Your task to perform on an android device: Go to Reddit.com Image 0: 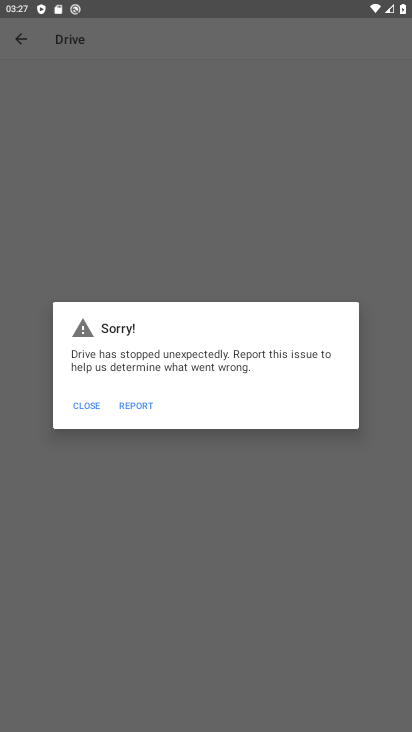
Step 0: press home button
Your task to perform on an android device: Go to Reddit.com Image 1: 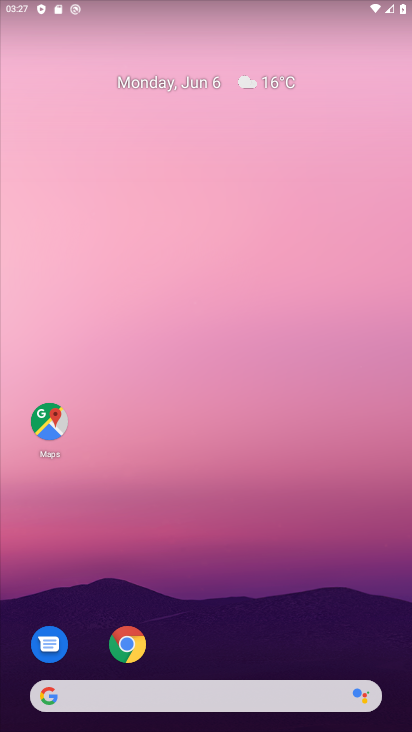
Step 1: drag from (381, 636) to (354, 160)
Your task to perform on an android device: Go to Reddit.com Image 2: 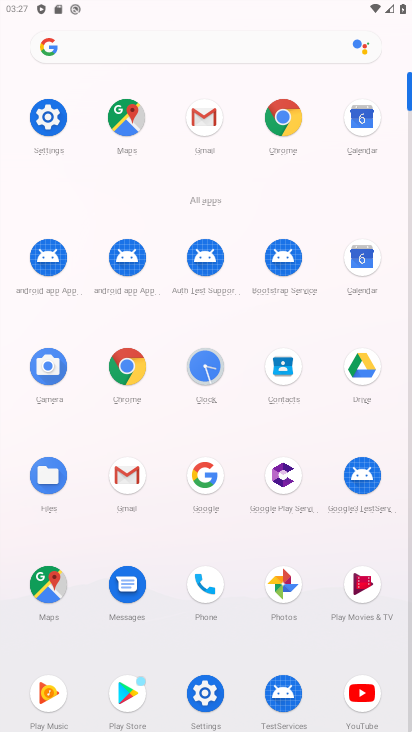
Step 2: click (284, 119)
Your task to perform on an android device: Go to Reddit.com Image 3: 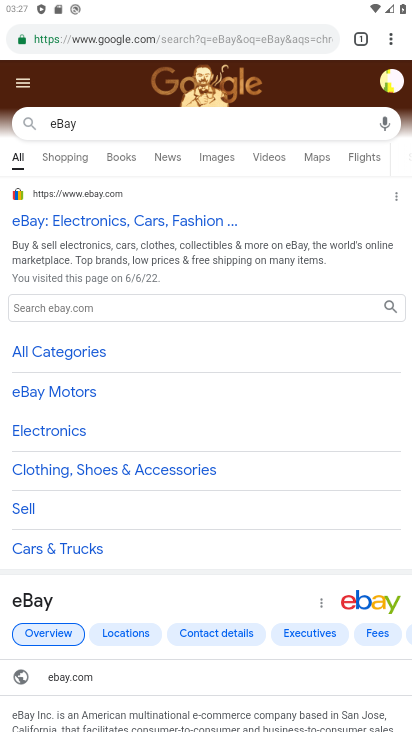
Step 3: click (331, 31)
Your task to perform on an android device: Go to Reddit.com Image 4: 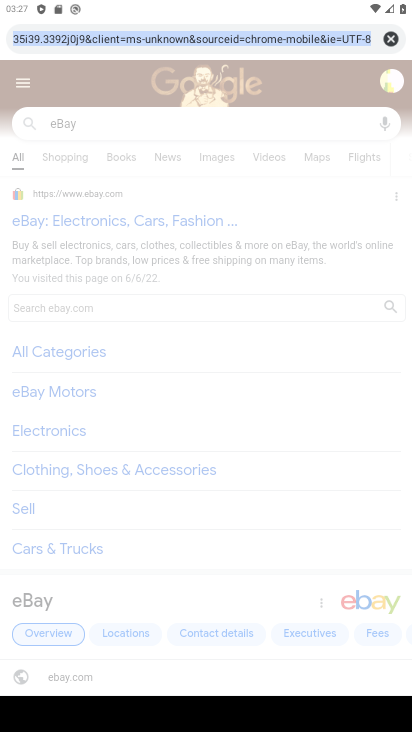
Step 4: click (384, 39)
Your task to perform on an android device: Go to Reddit.com Image 5: 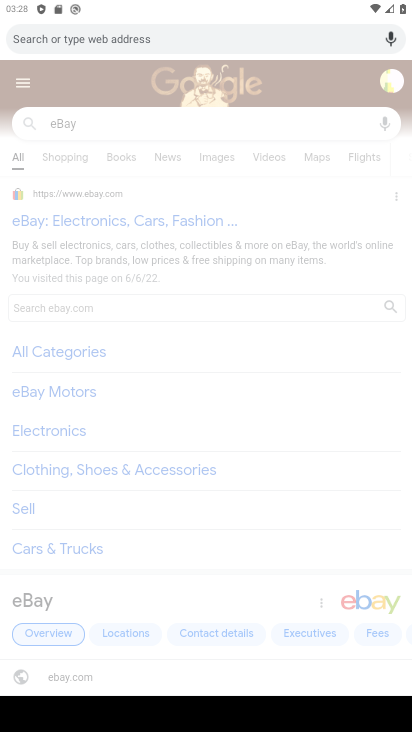
Step 5: type "Reddit.com"
Your task to perform on an android device: Go to Reddit.com Image 6: 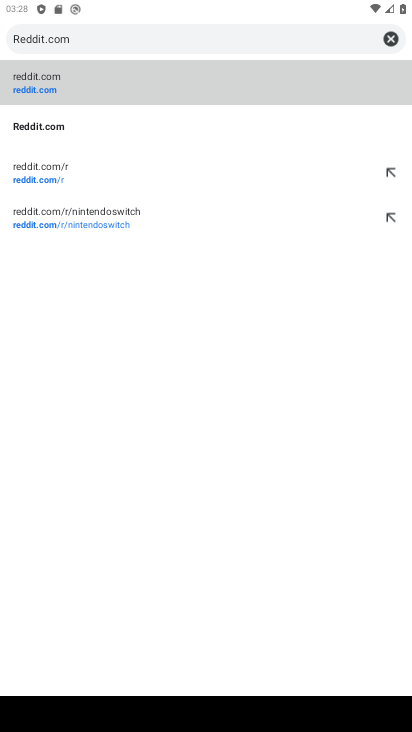
Step 6: click (47, 119)
Your task to perform on an android device: Go to Reddit.com Image 7: 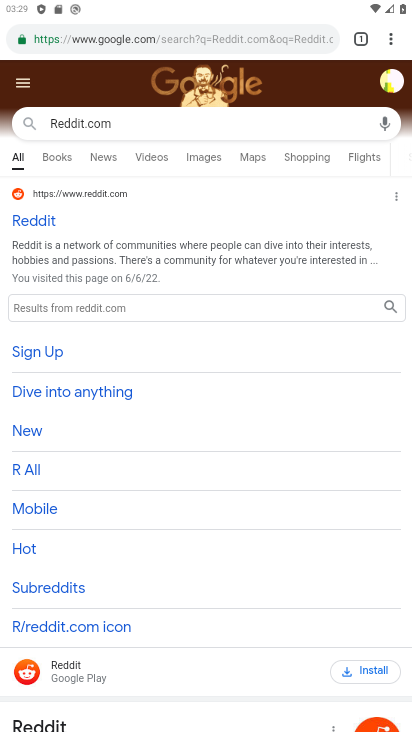
Step 7: task complete